Your task to perform on an android device: Play the last video I watched on Youtube Image 0: 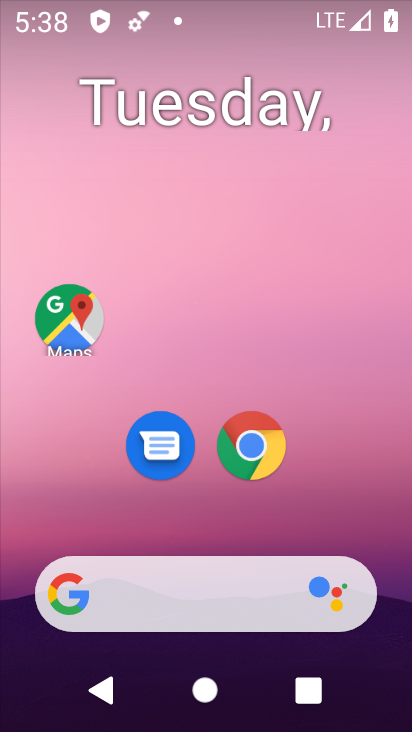
Step 0: drag from (307, 477) to (309, 196)
Your task to perform on an android device: Play the last video I watched on Youtube Image 1: 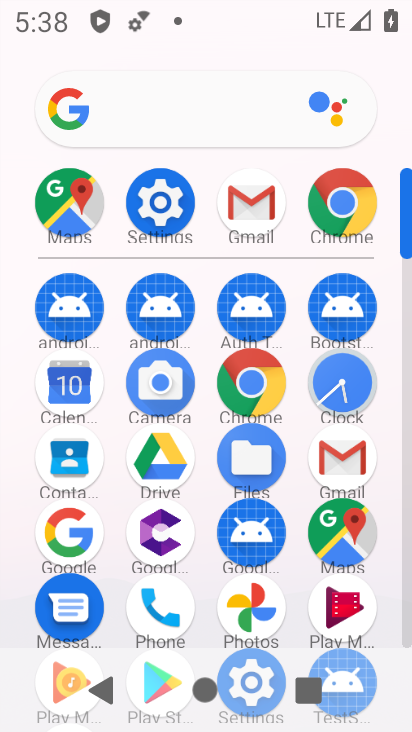
Step 1: drag from (295, 285) to (297, 75)
Your task to perform on an android device: Play the last video I watched on Youtube Image 2: 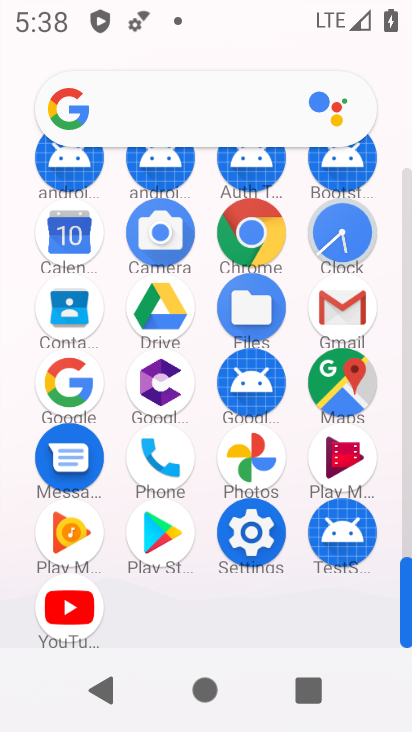
Step 2: click (62, 607)
Your task to perform on an android device: Play the last video I watched on Youtube Image 3: 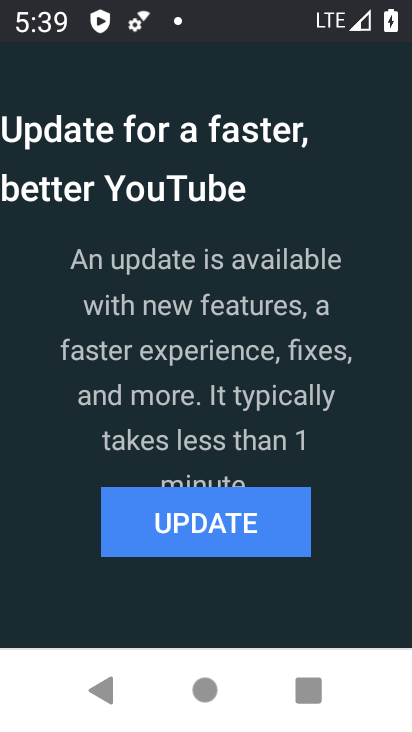
Step 3: click (228, 519)
Your task to perform on an android device: Play the last video I watched on Youtube Image 4: 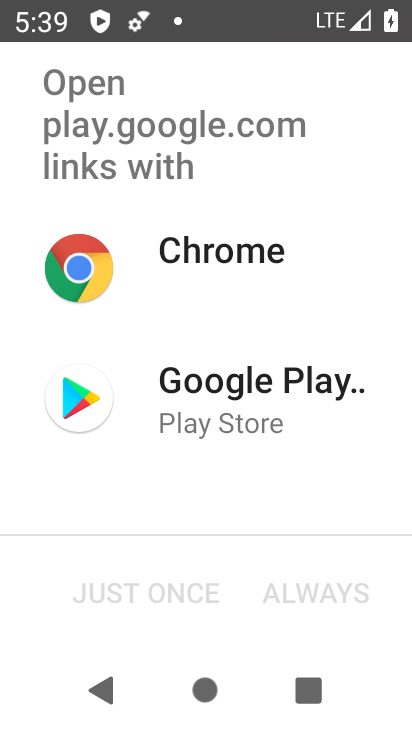
Step 4: drag from (205, 515) to (228, 285)
Your task to perform on an android device: Play the last video I watched on Youtube Image 5: 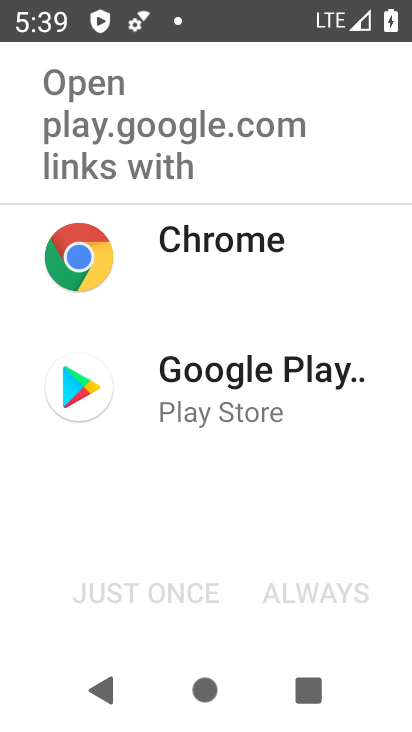
Step 5: click (284, 385)
Your task to perform on an android device: Play the last video I watched on Youtube Image 6: 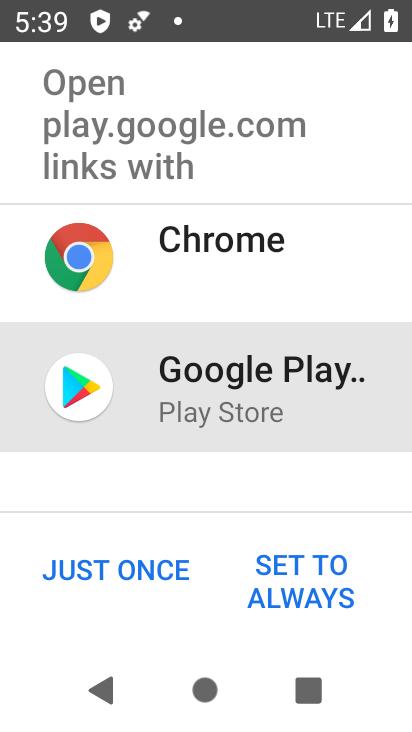
Step 6: drag from (246, 523) to (263, 295)
Your task to perform on an android device: Play the last video I watched on Youtube Image 7: 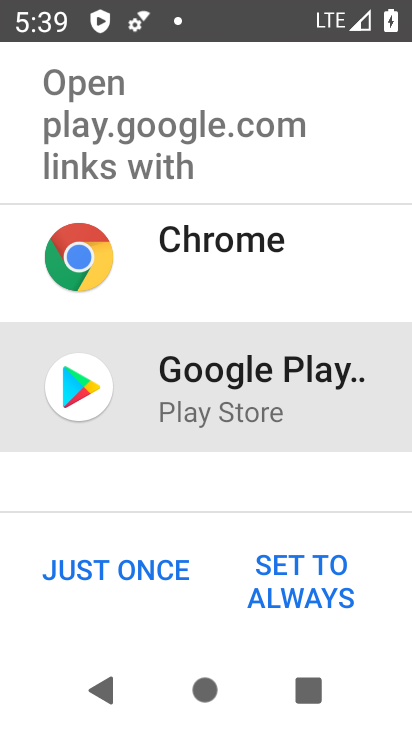
Step 7: click (152, 566)
Your task to perform on an android device: Play the last video I watched on Youtube Image 8: 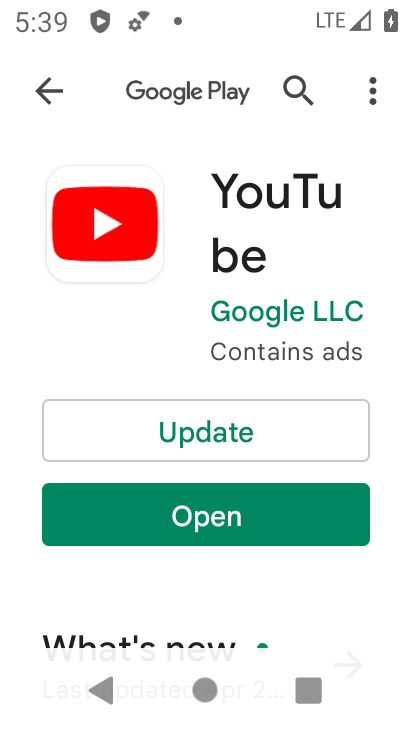
Step 8: click (328, 426)
Your task to perform on an android device: Play the last video I watched on Youtube Image 9: 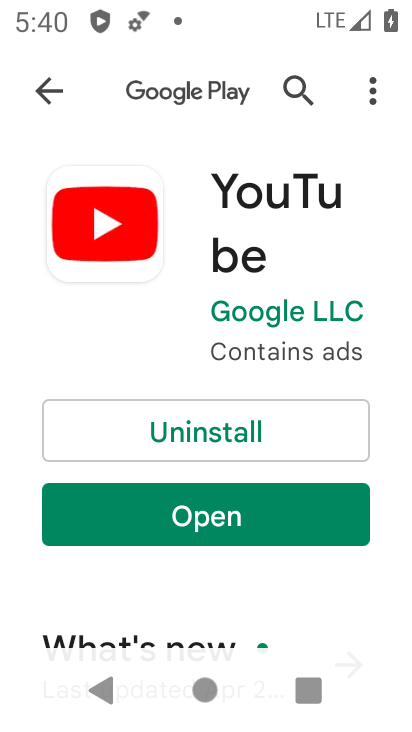
Step 9: click (253, 514)
Your task to perform on an android device: Play the last video I watched on Youtube Image 10: 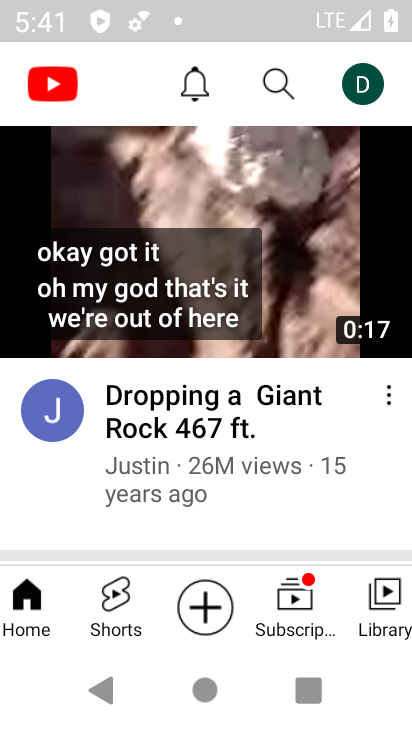
Step 10: click (378, 604)
Your task to perform on an android device: Play the last video I watched on Youtube Image 11: 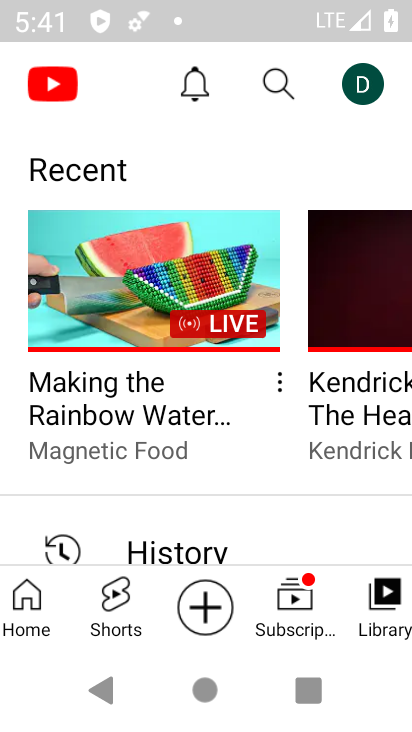
Step 11: click (163, 307)
Your task to perform on an android device: Play the last video I watched on Youtube Image 12: 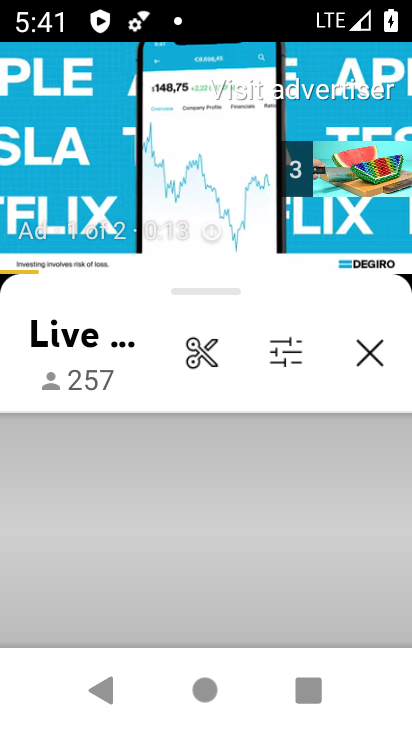
Step 12: task complete